Your task to perform on an android device: turn off data saver in the chrome app Image 0: 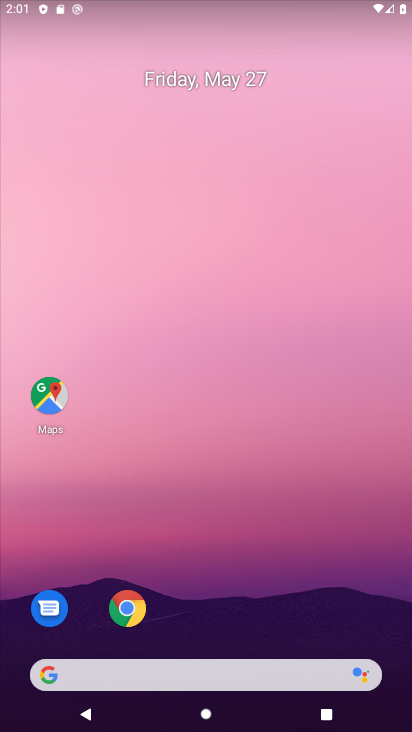
Step 0: click (131, 614)
Your task to perform on an android device: turn off data saver in the chrome app Image 1: 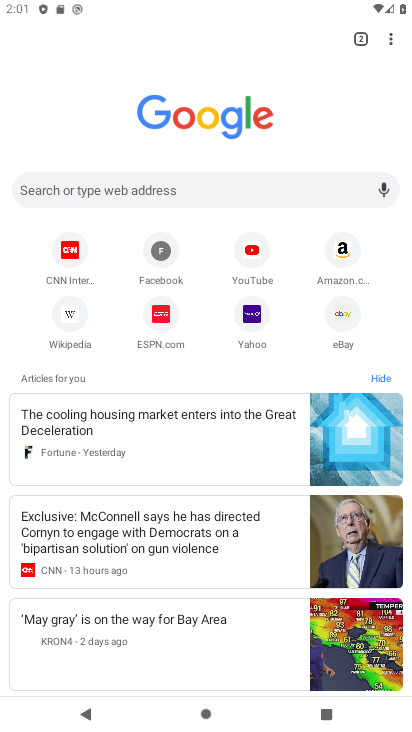
Step 1: click (393, 39)
Your task to perform on an android device: turn off data saver in the chrome app Image 2: 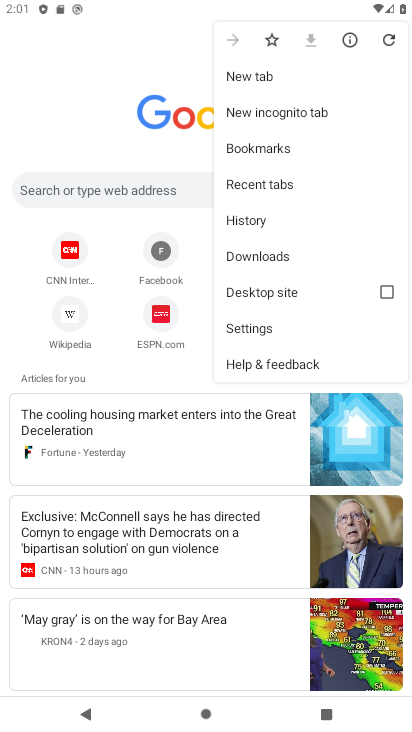
Step 2: click (245, 328)
Your task to perform on an android device: turn off data saver in the chrome app Image 3: 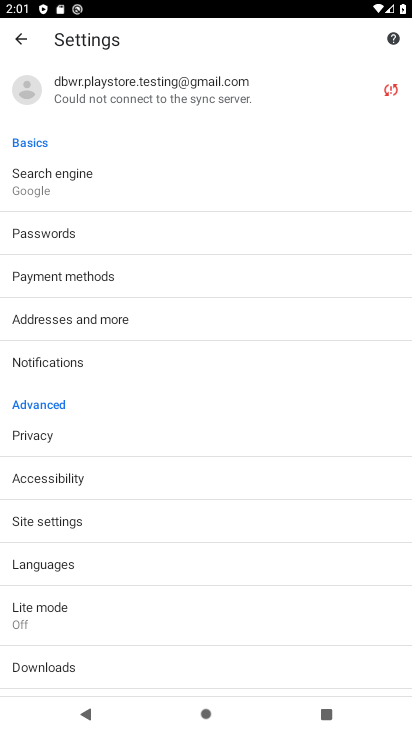
Step 3: click (47, 609)
Your task to perform on an android device: turn off data saver in the chrome app Image 4: 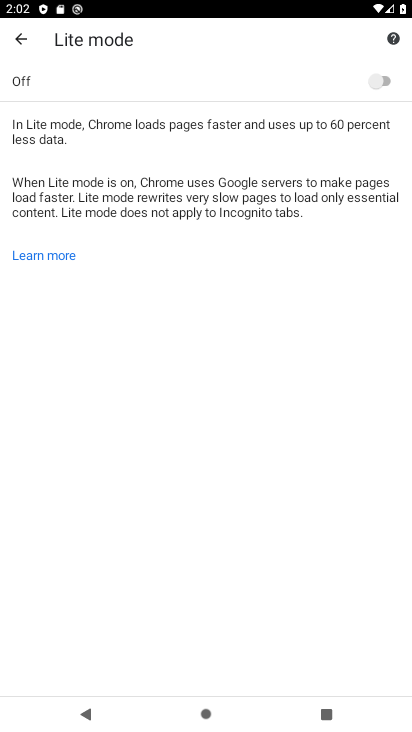
Step 4: task complete